Your task to perform on an android device: toggle pop-ups in chrome Image 0: 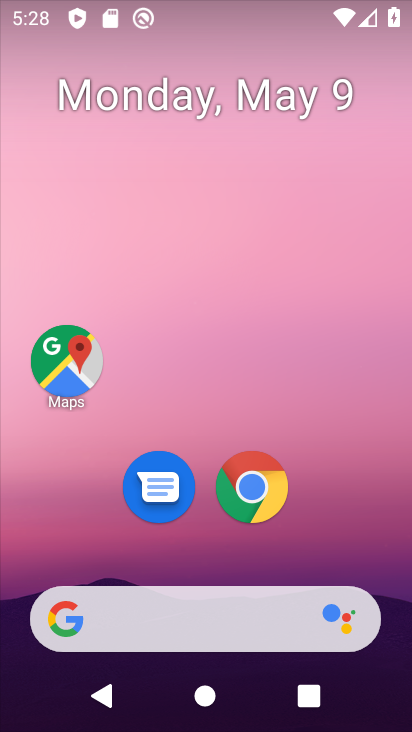
Step 0: drag from (332, 435) to (307, 59)
Your task to perform on an android device: toggle pop-ups in chrome Image 1: 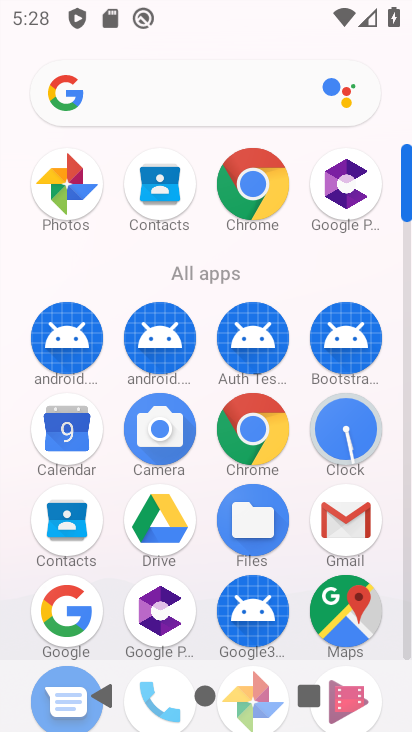
Step 1: click (260, 221)
Your task to perform on an android device: toggle pop-ups in chrome Image 2: 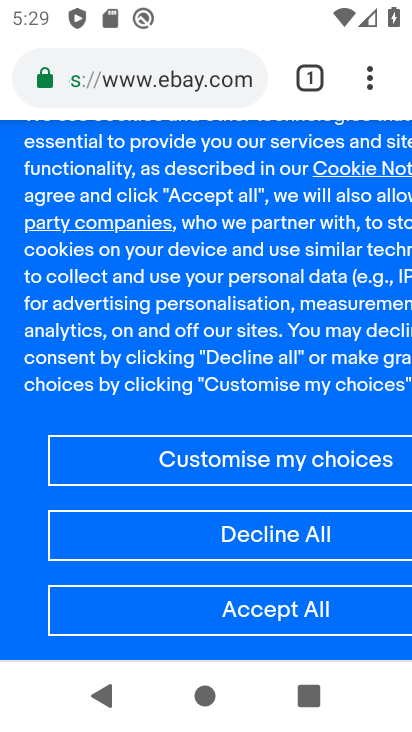
Step 2: click (369, 75)
Your task to perform on an android device: toggle pop-ups in chrome Image 3: 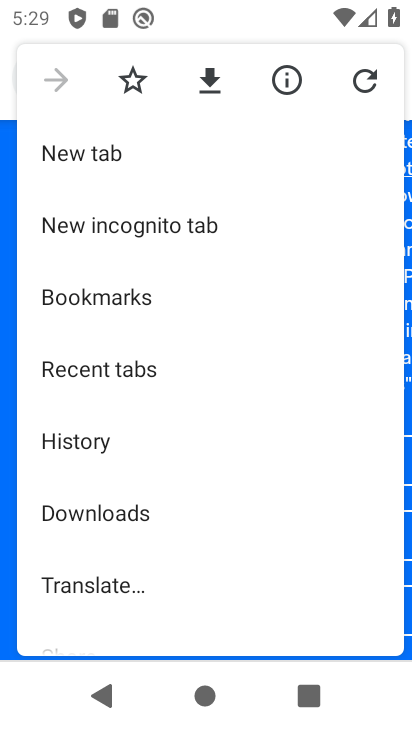
Step 3: drag from (184, 586) to (186, 189)
Your task to perform on an android device: toggle pop-ups in chrome Image 4: 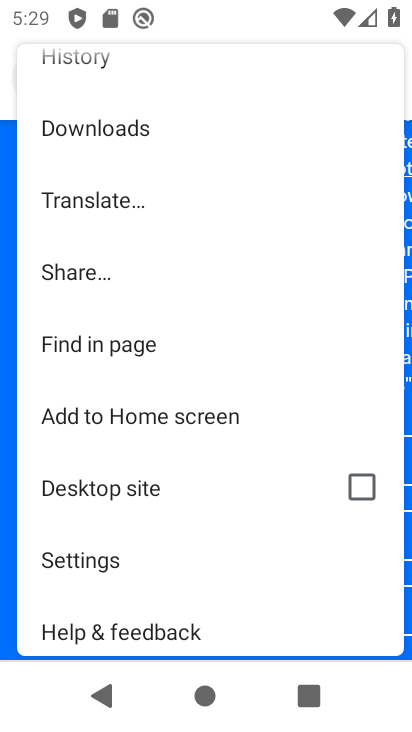
Step 4: click (132, 556)
Your task to perform on an android device: toggle pop-ups in chrome Image 5: 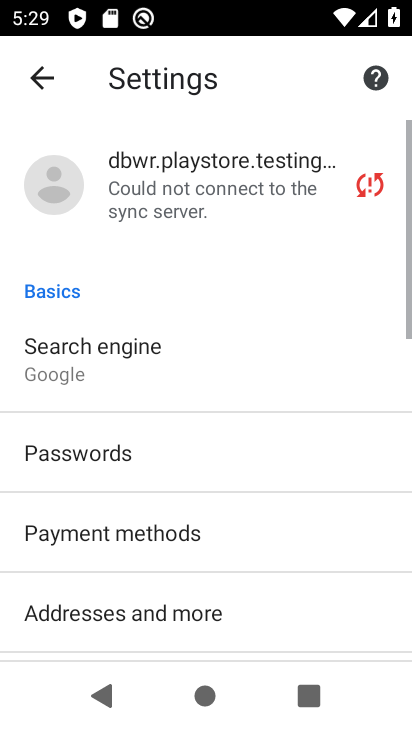
Step 5: drag from (200, 375) to (226, 253)
Your task to perform on an android device: toggle pop-ups in chrome Image 6: 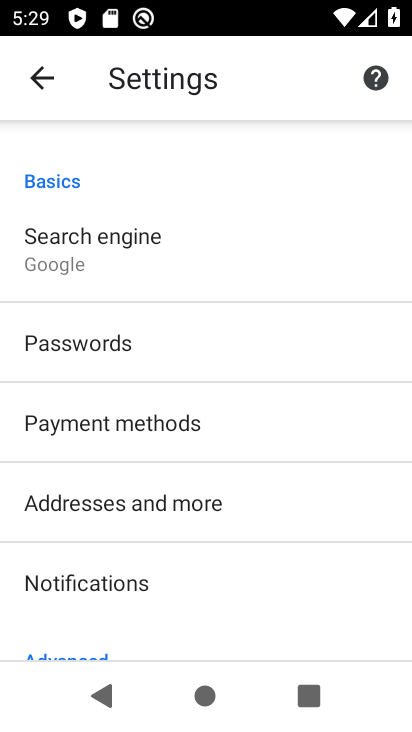
Step 6: drag from (190, 603) to (209, 341)
Your task to perform on an android device: toggle pop-ups in chrome Image 7: 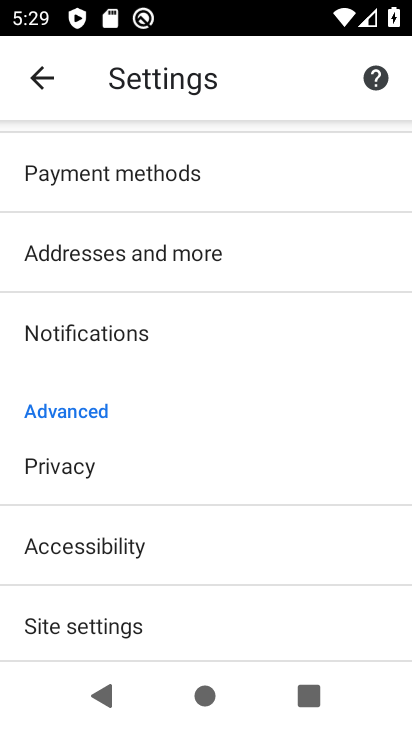
Step 7: click (139, 624)
Your task to perform on an android device: toggle pop-ups in chrome Image 8: 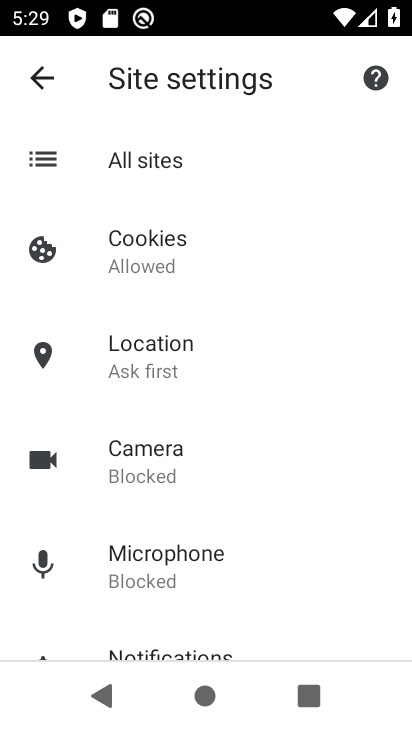
Step 8: drag from (189, 584) to (211, 325)
Your task to perform on an android device: toggle pop-ups in chrome Image 9: 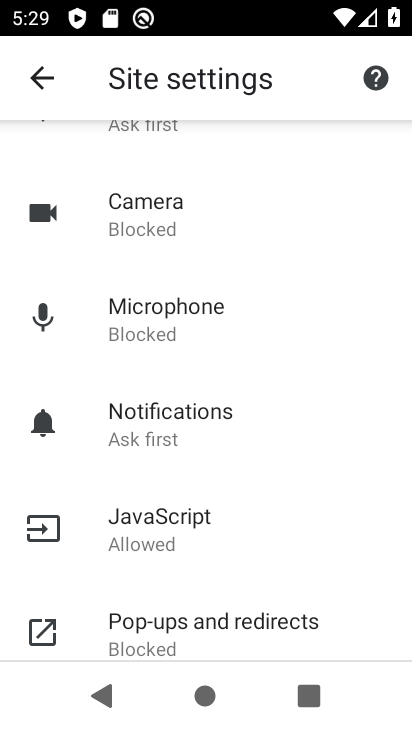
Step 9: click (183, 630)
Your task to perform on an android device: toggle pop-ups in chrome Image 10: 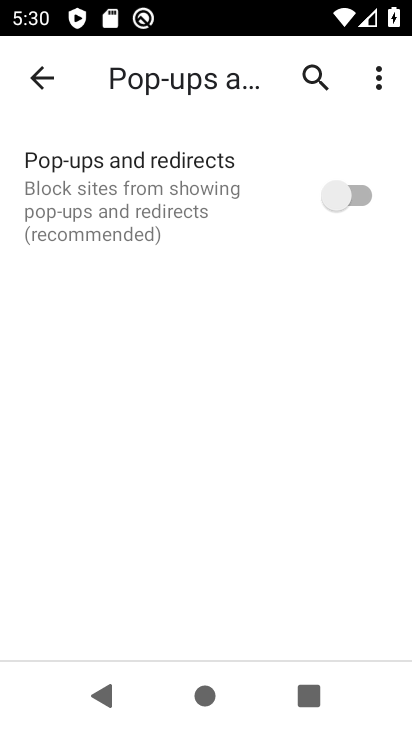
Step 10: click (355, 194)
Your task to perform on an android device: toggle pop-ups in chrome Image 11: 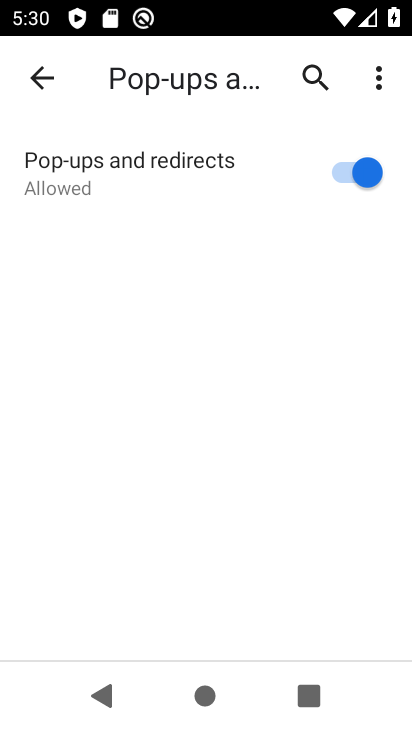
Step 11: task complete